Your task to perform on an android device: open chrome privacy settings Image 0: 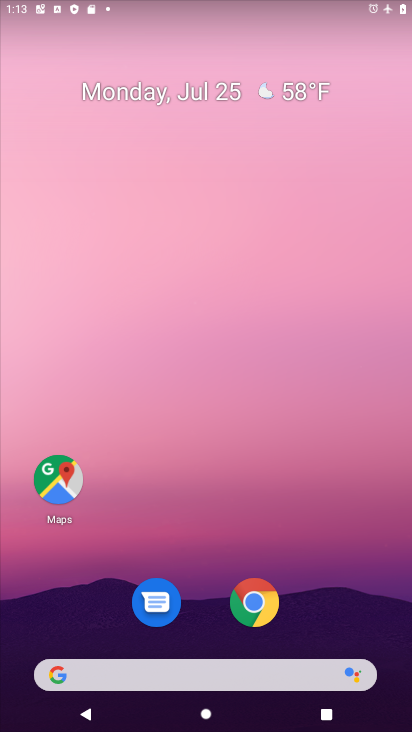
Step 0: click (274, 582)
Your task to perform on an android device: open chrome privacy settings Image 1: 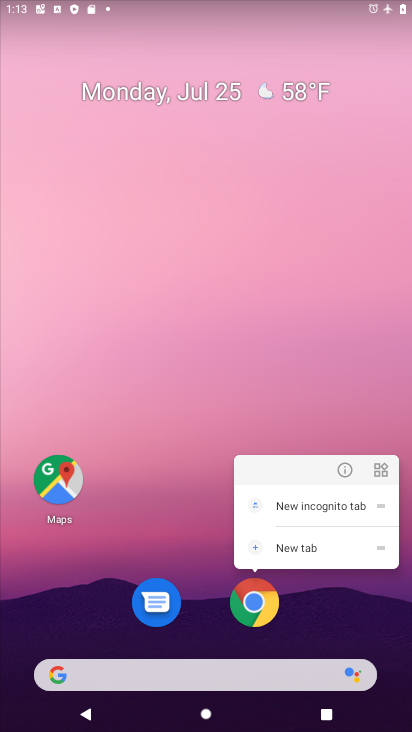
Step 1: click (250, 620)
Your task to perform on an android device: open chrome privacy settings Image 2: 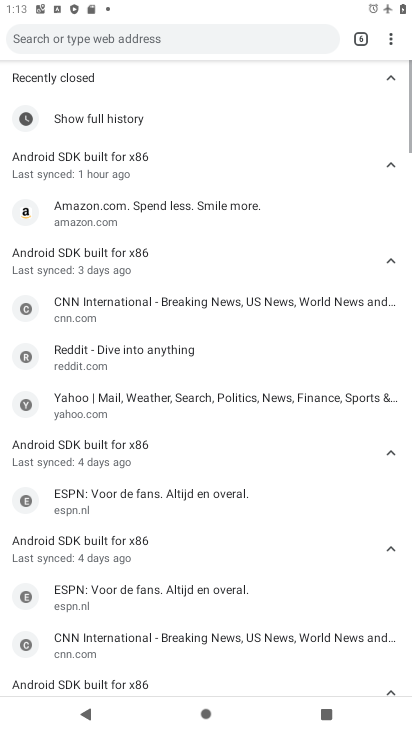
Step 2: click (391, 37)
Your task to perform on an android device: open chrome privacy settings Image 3: 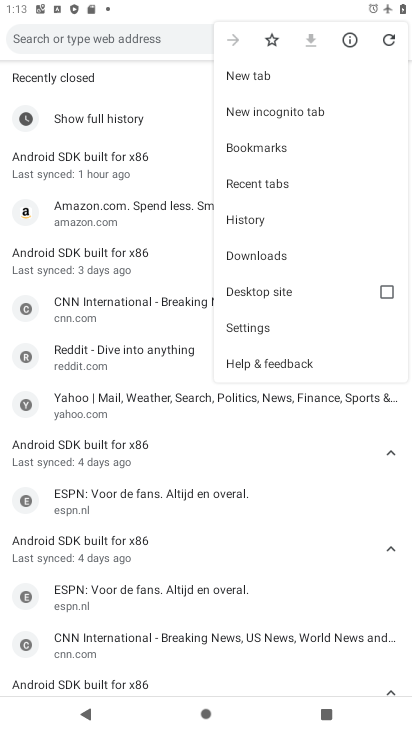
Step 3: click (264, 332)
Your task to perform on an android device: open chrome privacy settings Image 4: 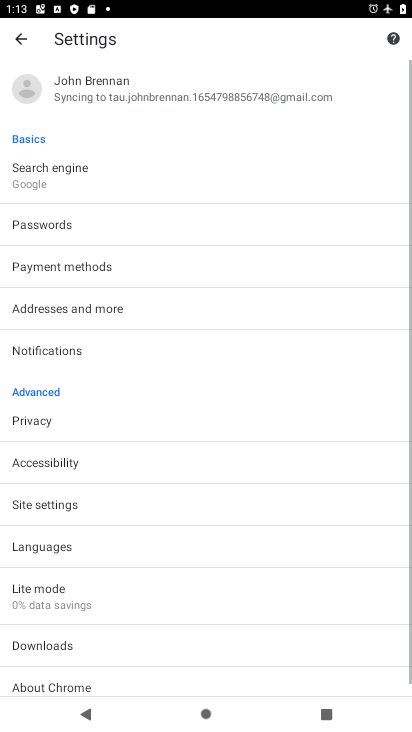
Step 4: click (108, 426)
Your task to perform on an android device: open chrome privacy settings Image 5: 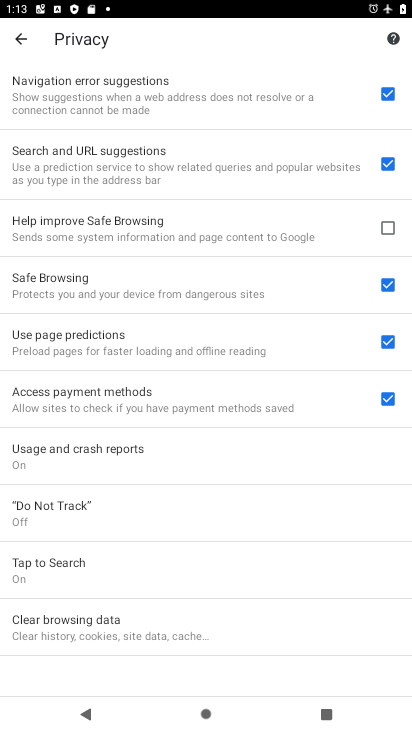
Step 5: task complete